Your task to perform on an android device: Play the last video I watched on Youtube Image 0: 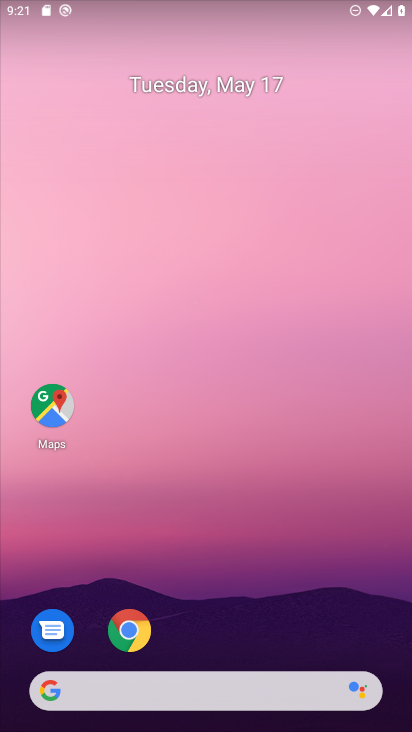
Step 0: drag from (320, 607) to (323, 206)
Your task to perform on an android device: Play the last video I watched on Youtube Image 1: 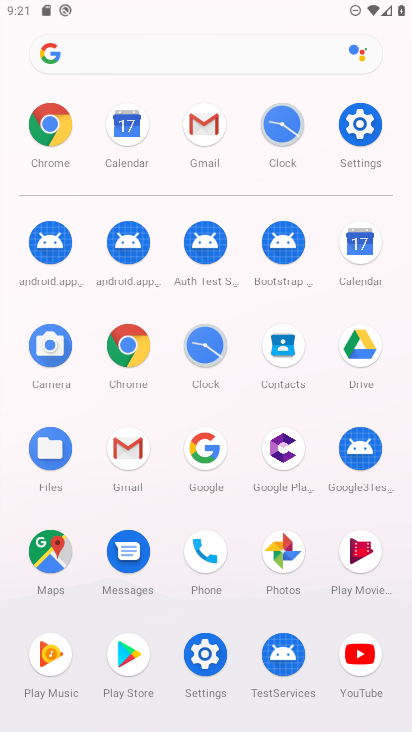
Step 1: click (340, 661)
Your task to perform on an android device: Play the last video I watched on Youtube Image 2: 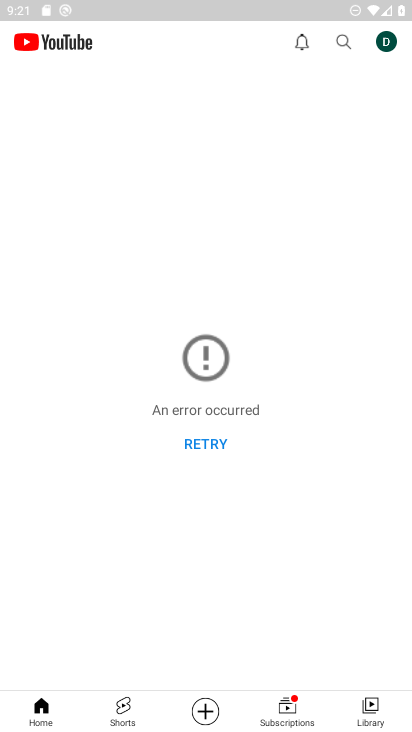
Step 2: click (375, 710)
Your task to perform on an android device: Play the last video I watched on Youtube Image 3: 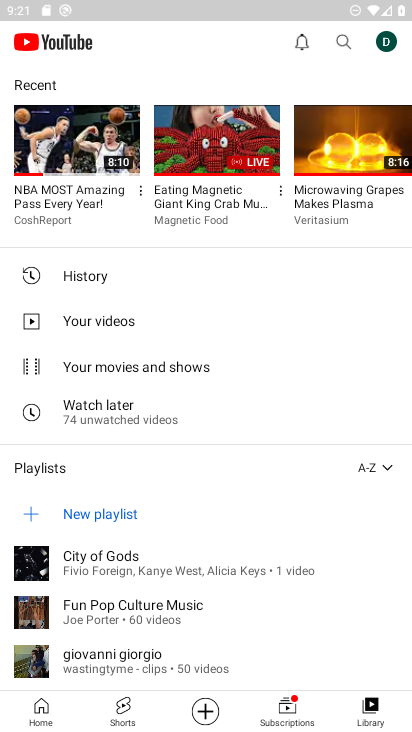
Step 3: click (69, 128)
Your task to perform on an android device: Play the last video I watched on Youtube Image 4: 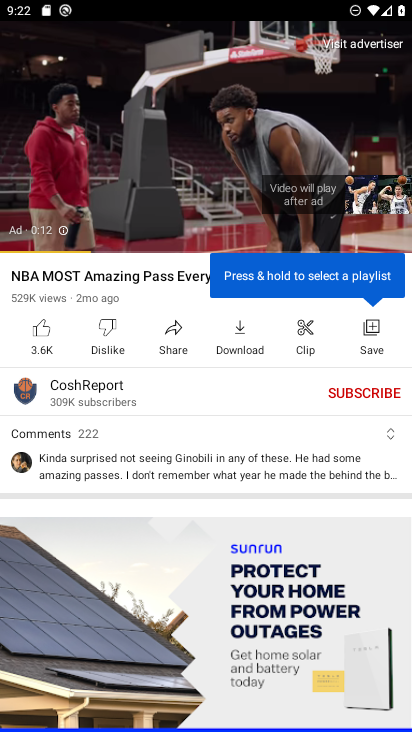
Step 4: task complete